Your task to perform on an android device: move an email to a new category in the gmail app Image 0: 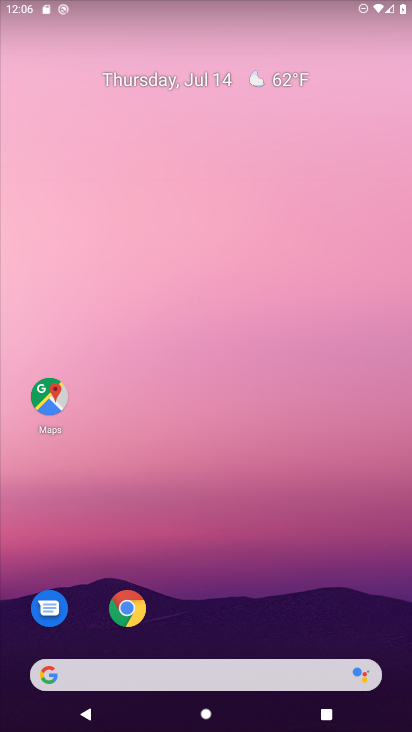
Step 0: drag from (240, 724) to (238, 66)
Your task to perform on an android device: move an email to a new category in the gmail app Image 1: 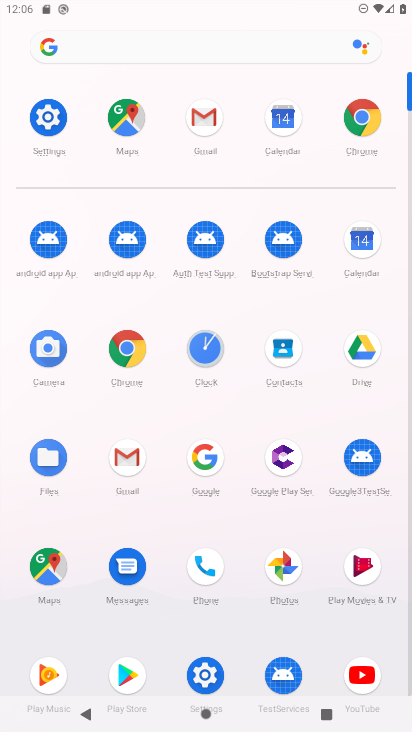
Step 1: click (134, 461)
Your task to perform on an android device: move an email to a new category in the gmail app Image 2: 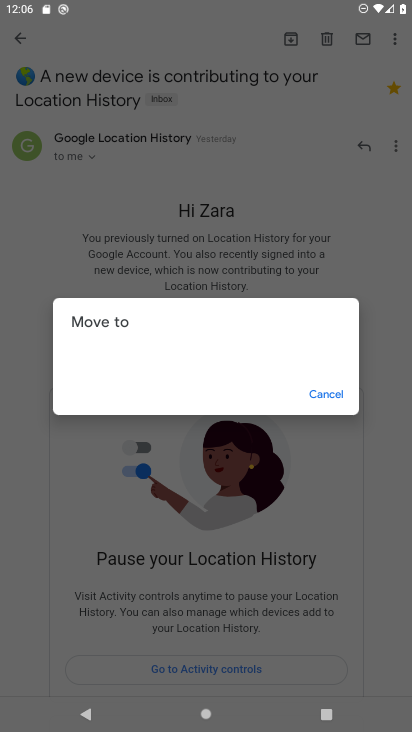
Step 2: click (327, 396)
Your task to perform on an android device: move an email to a new category in the gmail app Image 3: 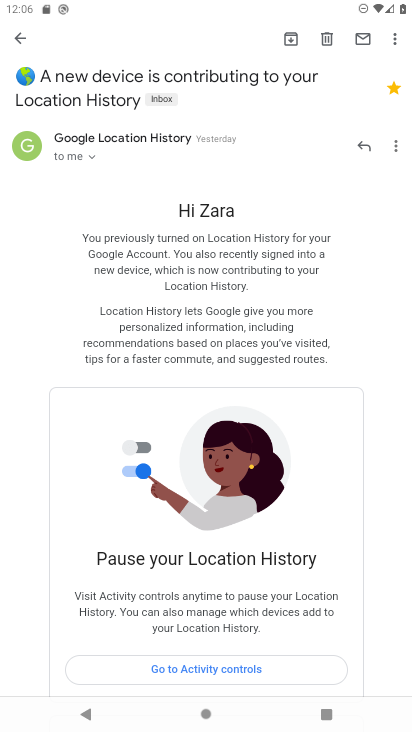
Step 3: task complete